Your task to perform on an android device: Add "usb-a to usb-b" to the cart on target.com, then select checkout. Image 0: 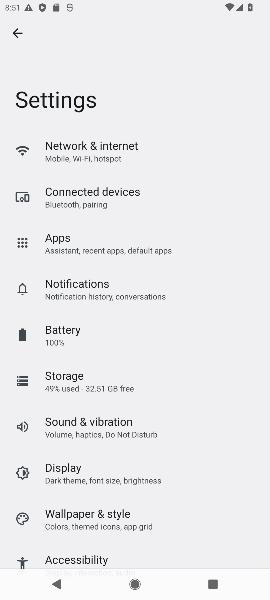
Step 0: press home button
Your task to perform on an android device: Add "usb-a to usb-b" to the cart on target.com, then select checkout. Image 1: 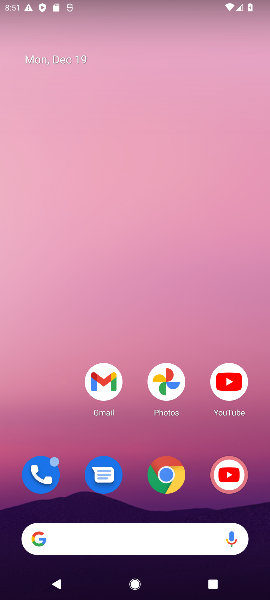
Step 1: click (162, 480)
Your task to perform on an android device: Add "usb-a to usb-b" to the cart on target.com, then select checkout. Image 2: 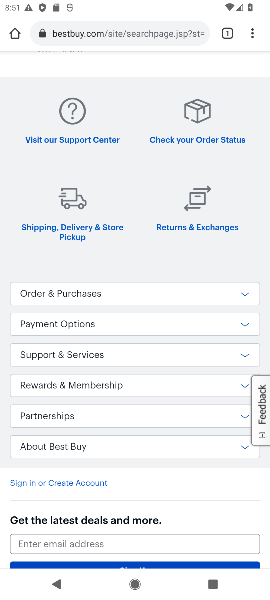
Step 2: click (110, 24)
Your task to perform on an android device: Add "usb-a to usb-b" to the cart on target.com, then select checkout. Image 3: 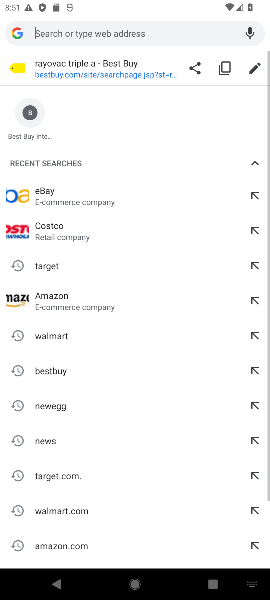
Step 3: click (57, 270)
Your task to perform on an android device: Add "usb-a to usb-b" to the cart on target.com, then select checkout. Image 4: 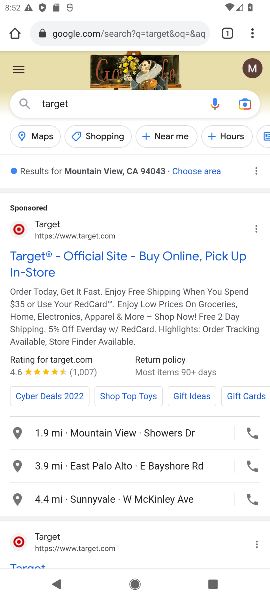
Step 4: click (149, 253)
Your task to perform on an android device: Add "usb-a to usb-b" to the cart on target.com, then select checkout. Image 5: 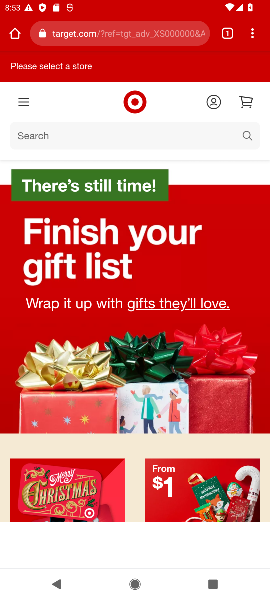
Step 5: click (89, 136)
Your task to perform on an android device: Add "usb-a to usb-b" to the cart on target.com, then select checkout. Image 6: 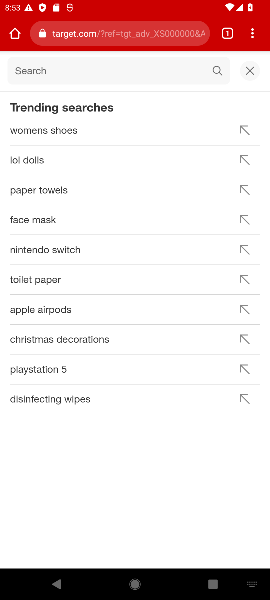
Step 6: type "usb-a to usb-b"
Your task to perform on an android device: Add "usb-a to usb-b" to the cart on target.com, then select checkout. Image 7: 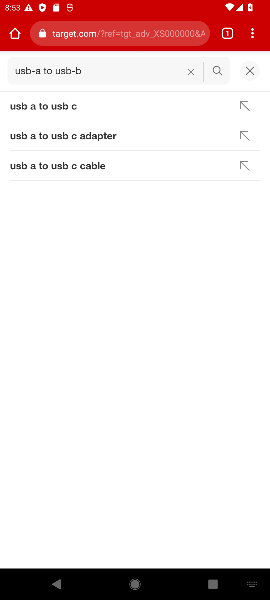
Step 7: click (57, 106)
Your task to perform on an android device: Add "usb-a to usb-b" to the cart on target.com, then select checkout. Image 8: 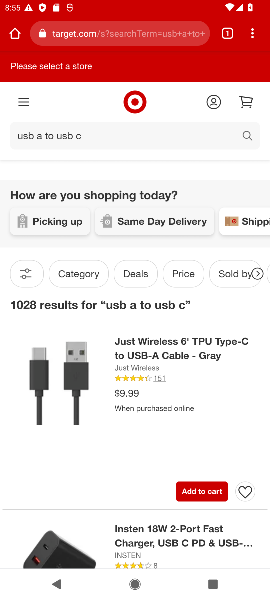
Step 8: click (207, 491)
Your task to perform on an android device: Add "usb-a to usb-b" to the cart on target.com, then select checkout. Image 9: 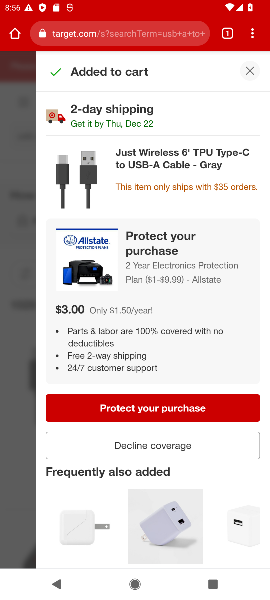
Step 9: task complete